Your task to perform on an android device: Open Google Maps Image 0: 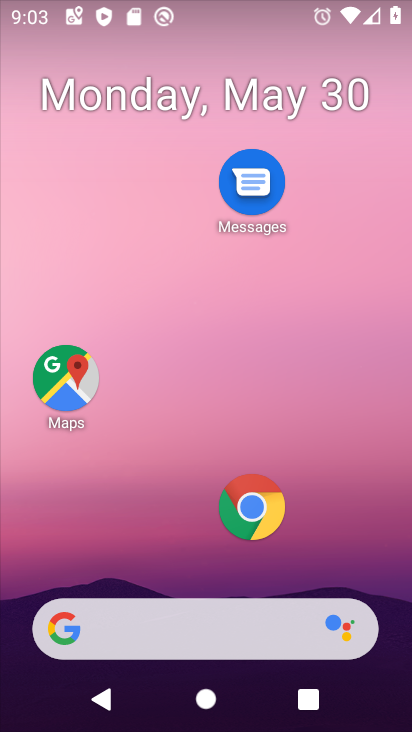
Step 0: click (44, 380)
Your task to perform on an android device: Open Google Maps Image 1: 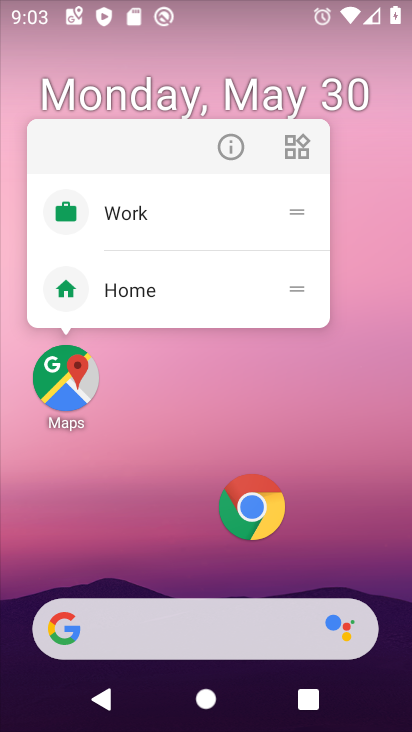
Step 1: click (60, 380)
Your task to perform on an android device: Open Google Maps Image 2: 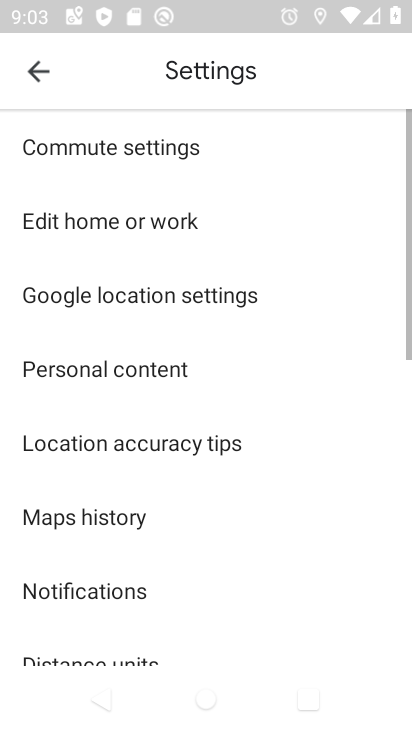
Step 2: click (35, 82)
Your task to perform on an android device: Open Google Maps Image 3: 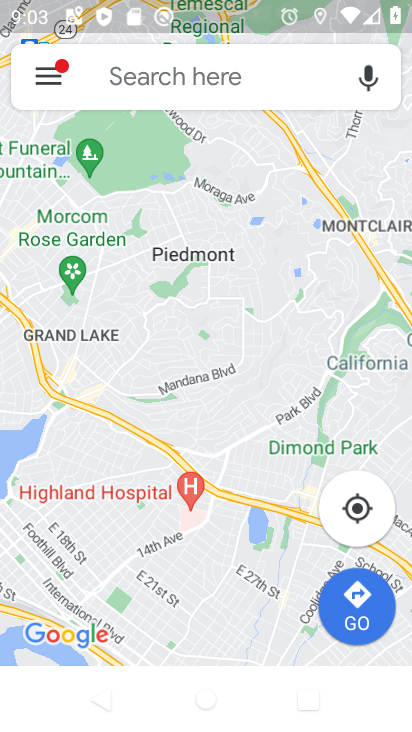
Step 3: task complete